Your task to perform on an android device: Open Google Maps and go to "Timeline" Image 0: 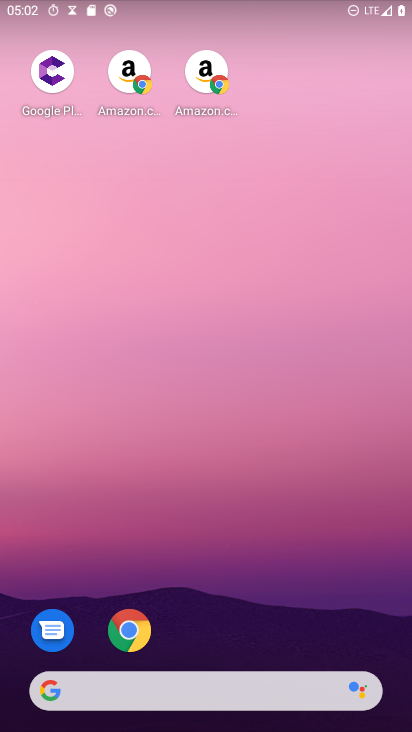
Step 0: drag from (305, 691) to (350, 61)
Your task to perform on an android device: Open Google Maps and go to "Timeline" Image 1: 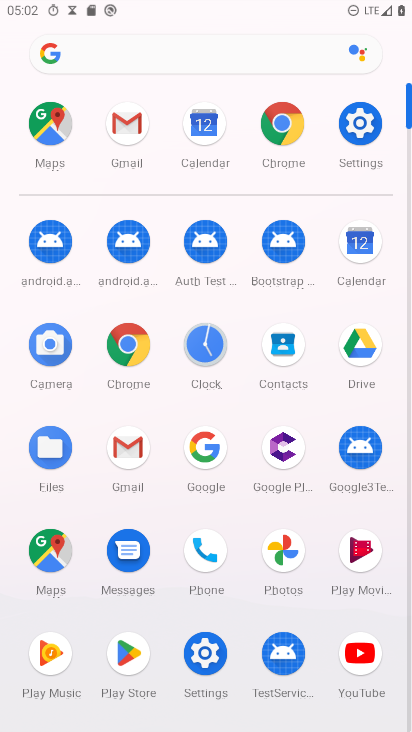
Step 1: click (54, 562)
Your task to perform on an android device: Open Google Maps and go to "Timeline" Image 2: 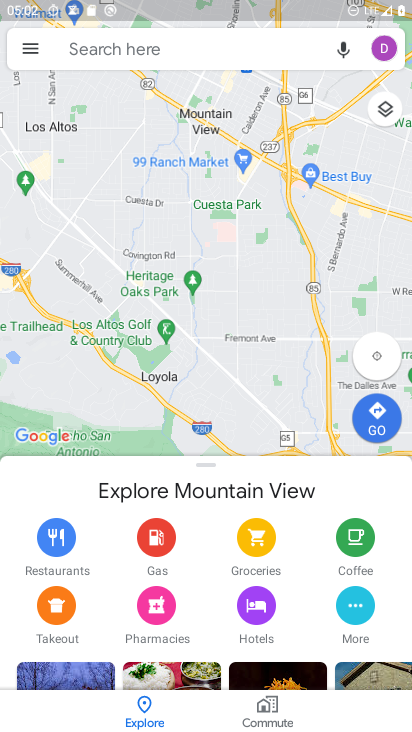
Step 2: click (23, 46)
Your task to perform on an android device: Open Google Maps and go to "Timeline" Image 3: 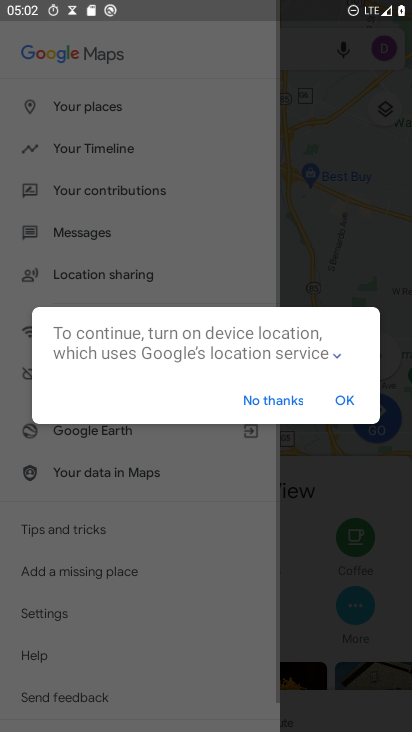
Step 3: click (284, 400)
Your task to perform on an android device: Open Google Maps and go to "Timeline" Image 4: 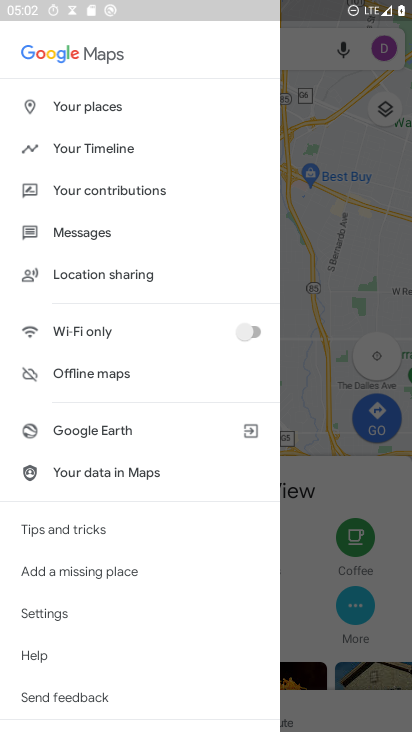
Step 4: click (100, 145)
Your task to perform on an android device: Open Google Maps and go to "Timeline" Image 5: 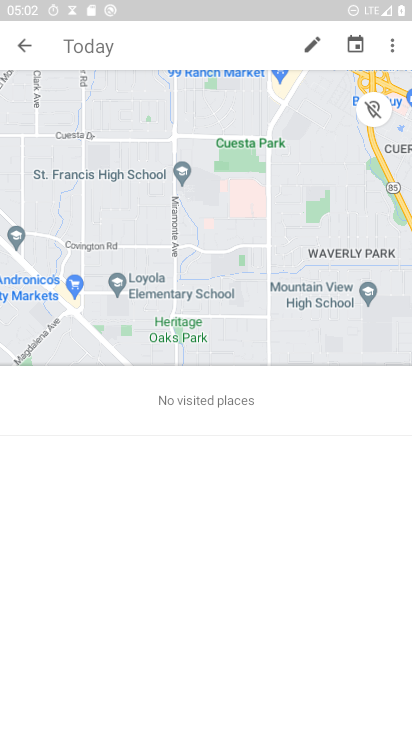
Step 5: task complete